Your task to perform on an android device: turn on improve location accuracy Image 0: 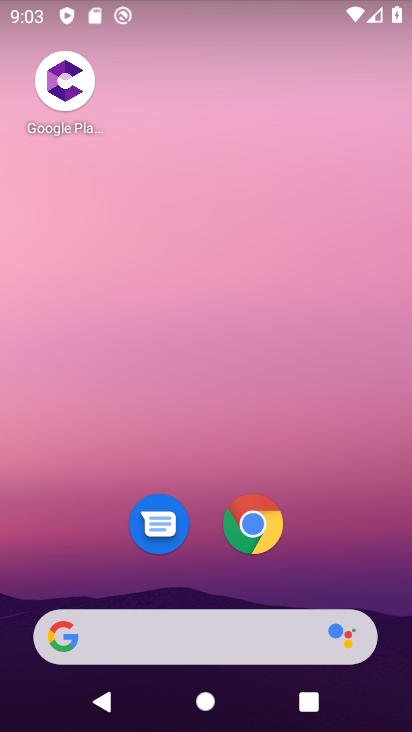
Step 0: drag from (219, 395) to (243, 97)
Your task to perform on an android device: turn on improve location accuracy Image 1: 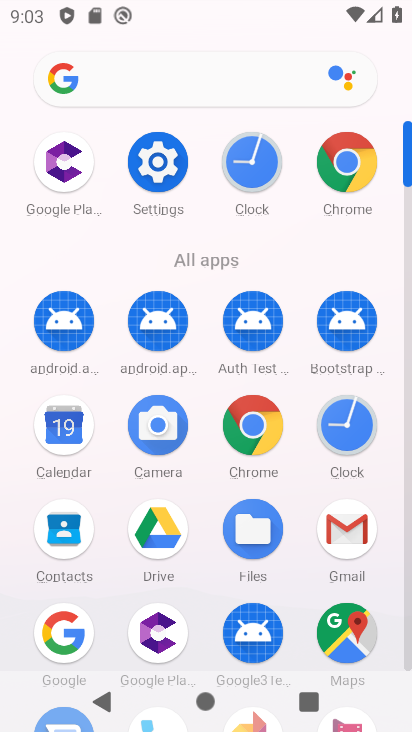
Step 1: click (149, 166)
Your task to perform on an android device: turn on improve location accuracy Image 2: 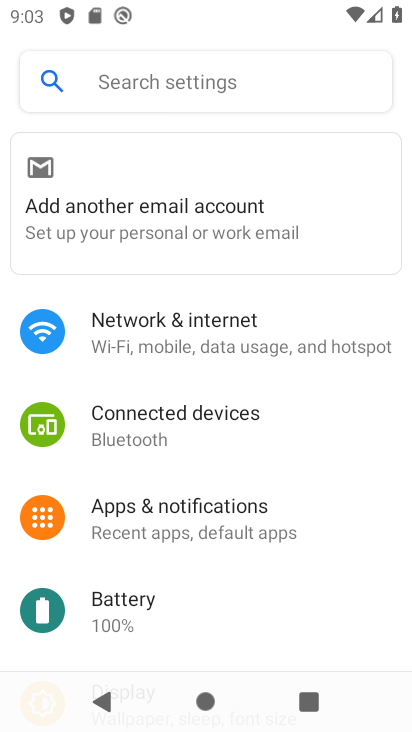
Step 2: drag from (223, 596) to (211, 215)
Your task to perform on an android device: turn on improve location accuracy Image 3: 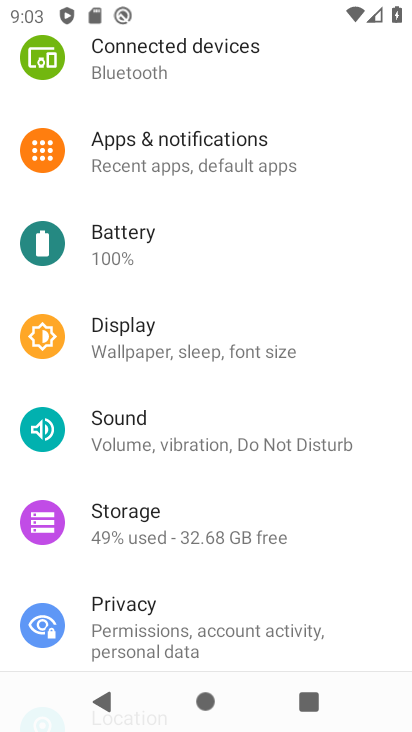
Step 3: drag from (214, 494) to (227, 142)
Your task to perform on an android device: turn on improve location accuracy Image 4: 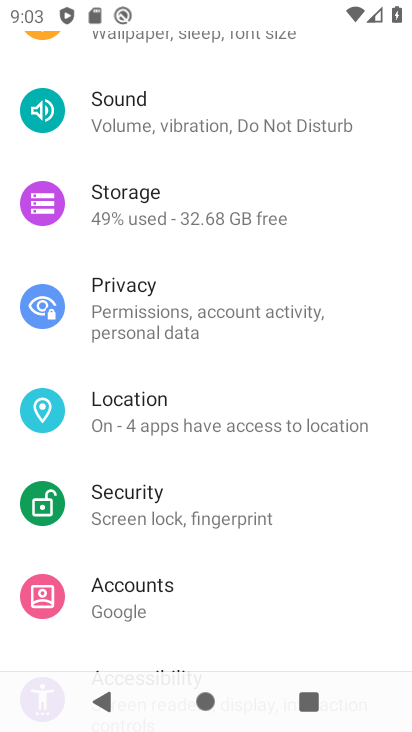
Step 4: click (202, 424)
Your task to perform on an android device: turn on improve location accuracy Image 5: 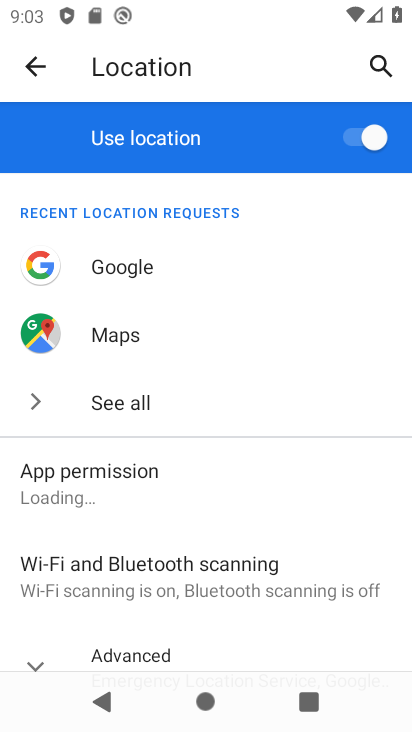
Step 5: drag from (190, 496) to (220, 177)
Your task to perform on an android device: turn on improve location accuracy Image 6: 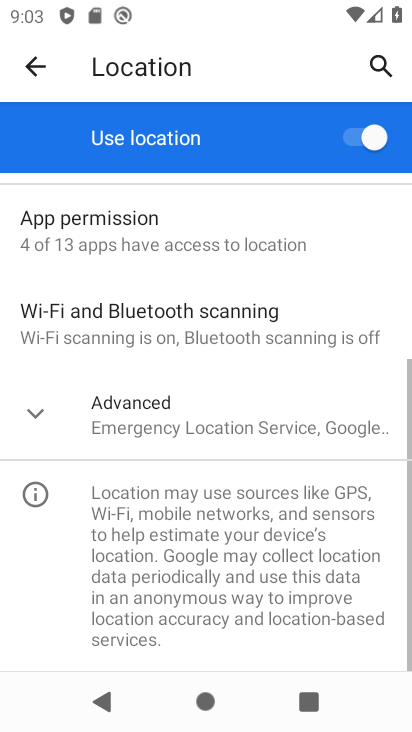
Step 6: click (30, 409)
Your task to perform on an android device: turn on improve location accuracy Image 7: 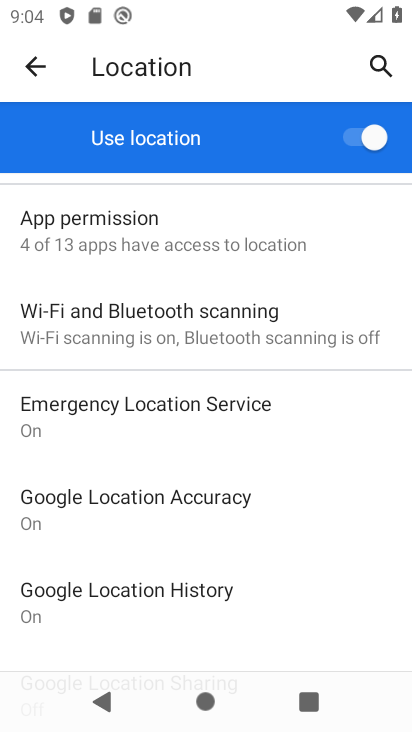
Step 7: click (75, 504)
Your task to perform on an android device: turn on improve location accuracy Image 8: 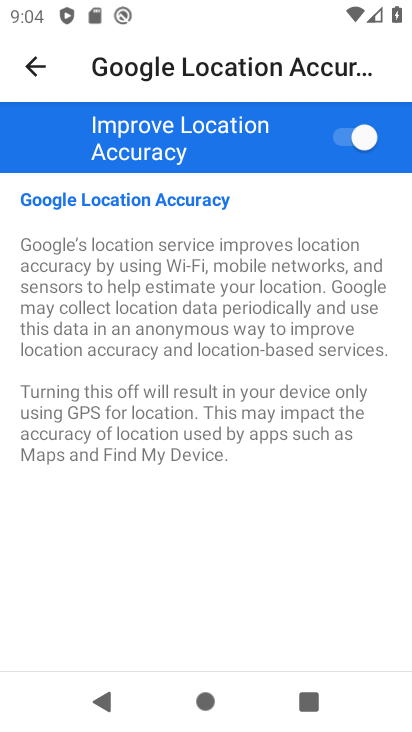
Step 8: task complete